Your task to perform on an android device: toggle priority inbox in the gmail app Image 0: 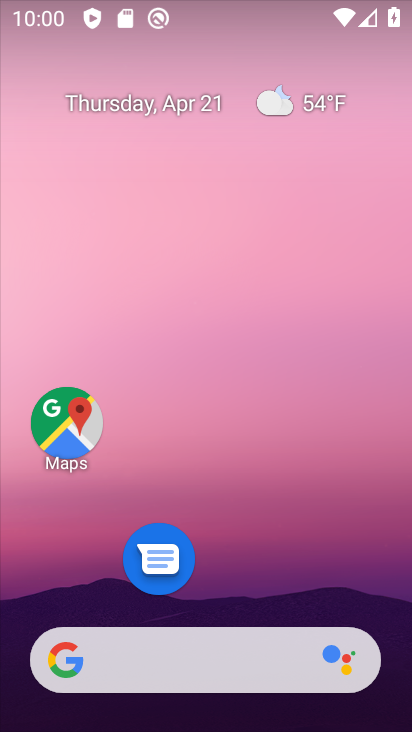
Step 0: drag from (264, 447) to (306, 149)
Your task to perform on an android device: toggle priority inbox in the gmail app Image 1: 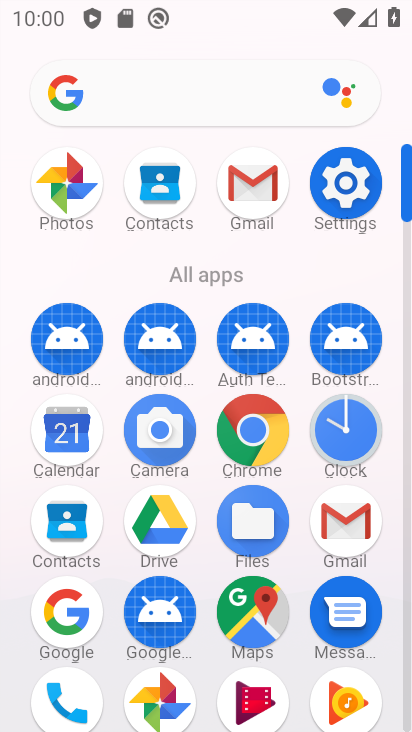
Step 1: click (251, 182)
Your task to perform on an android device: toggle priority inbox in the gmail app Image 2: 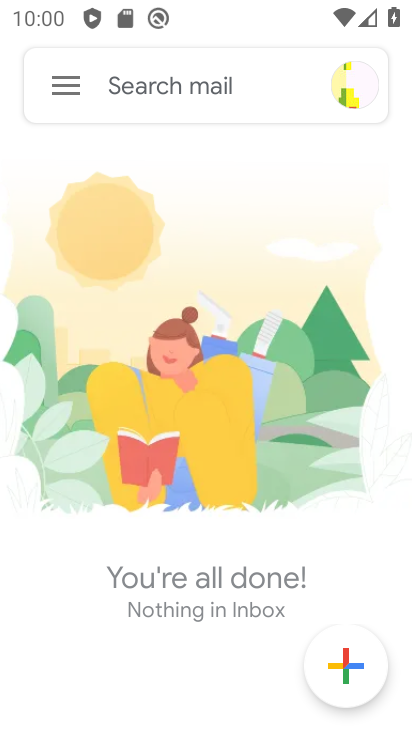
Step 2: click (57, 99)
Your task to perform on an android device: toggle priority inbox in the gmail app Image 3: 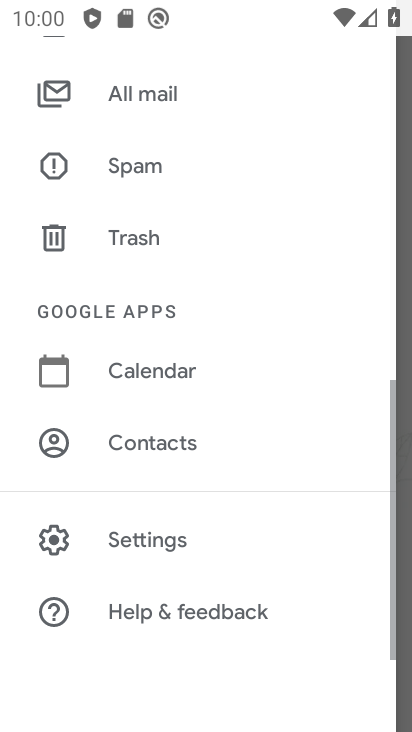
Step 3: click (154, 534)
Your task to perform on an android device: toggle priority inbox in the gmail app Image 4: 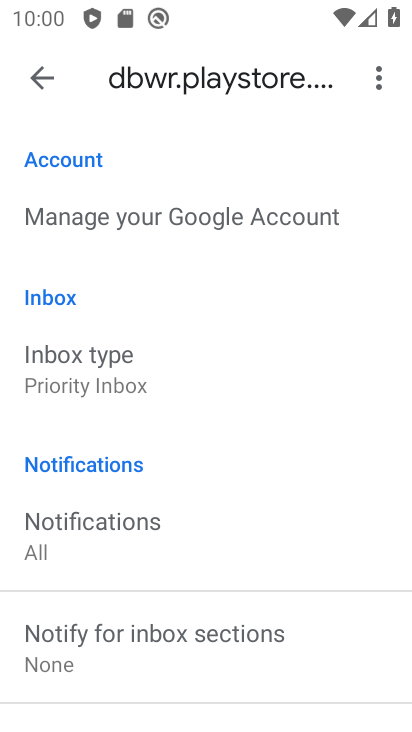
Step 4: click (124, 376)
Your task to perform on an android device: toggle priority inbox in the gmail app Image 5: 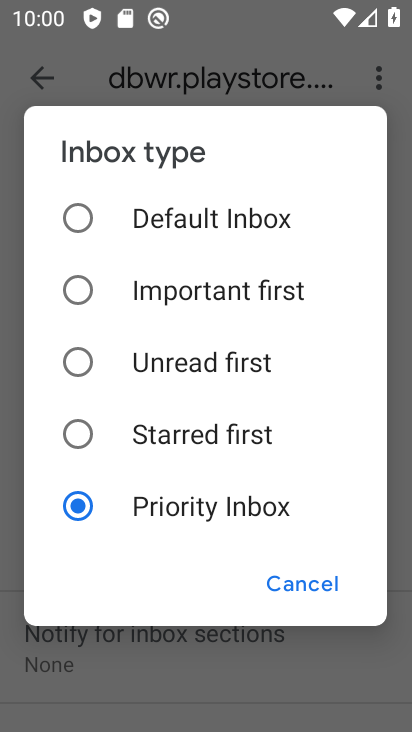
Step 5: click (86, 508)
Your task to perform on an android device: toggle priority inbox in the gmail app Image 6: 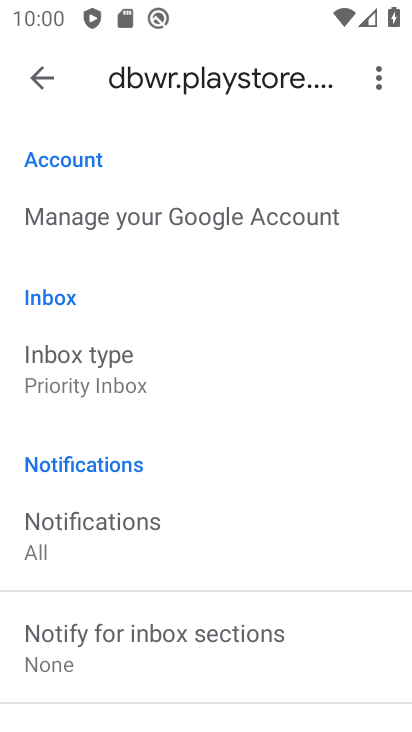
Step 6: task complete